Your task to perform on an android device: Open my contact list Image 0: 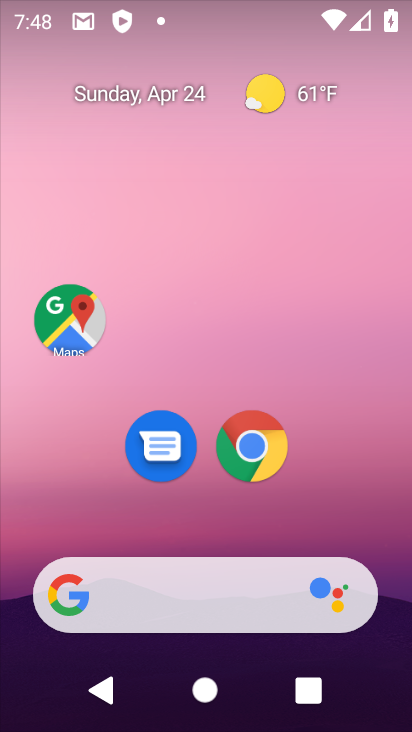
Step 0: click (191, 25)
Your task to perform on an android device: Open my contact list Image 1: 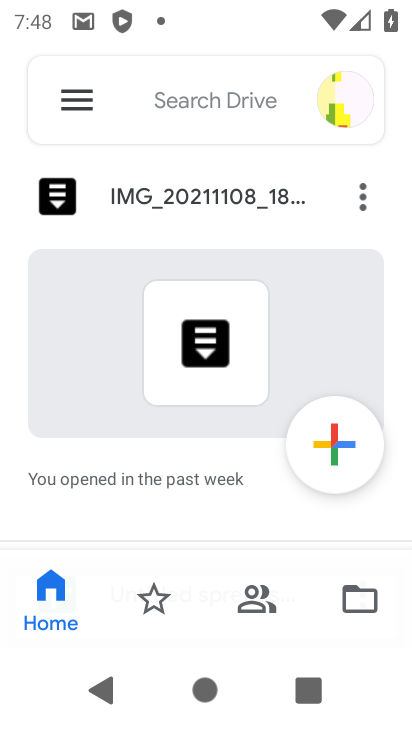
Step 1: press home button
Your task to perform on an android device: Open my contact list Image 2: 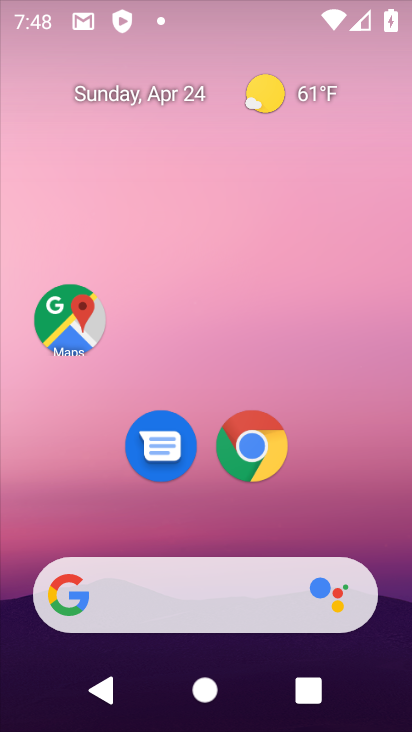
Step 2: drag from (206, 637) to (241, 136)
Your task to perform on an android device: Open my contact list Image 3: 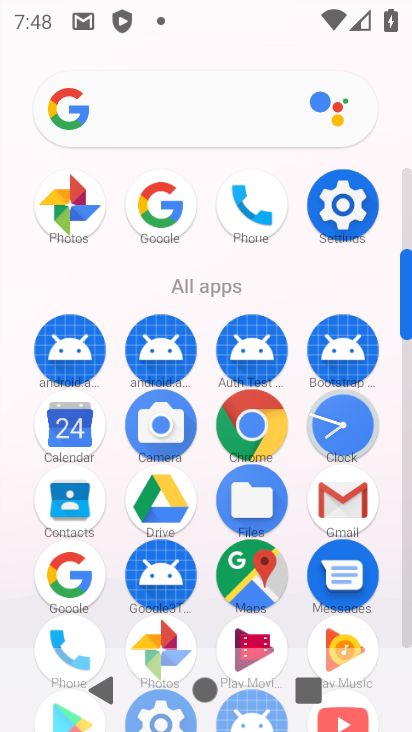
Step 3: drag from (301, 476) to (301, 237)
Your task to perform on an android device: Open my contact list Image 4: 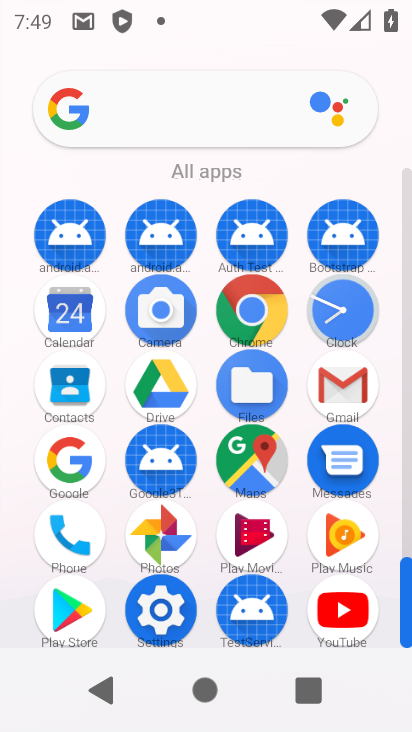
Step 4: click (54, 400)
Your task to perform on an android device: Open my contact list Image 5: 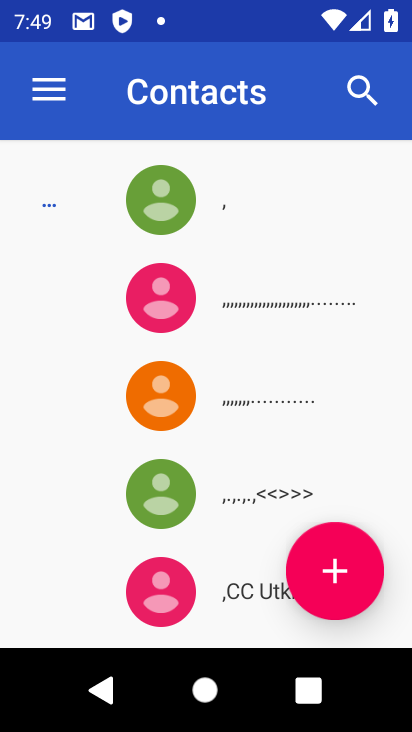
Step 5: task complete